Your task to perform on an android device: turn smart compose on in the gmail app Image 0: 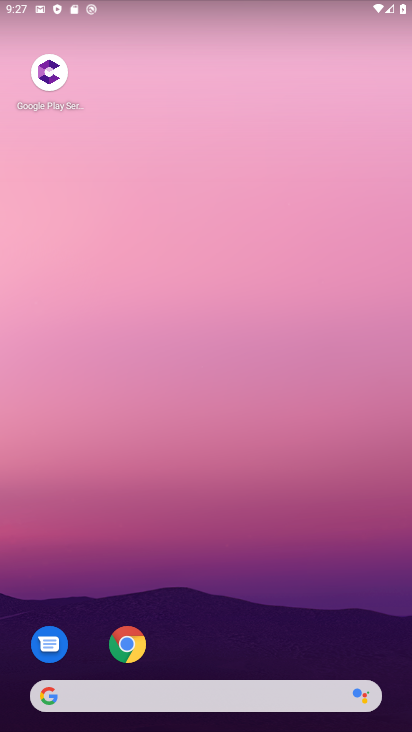
Step 0: drag from (208, 592) to (216, 62)
Your task to perform on an android device: turn smart compose on in the gmail app Image 1: 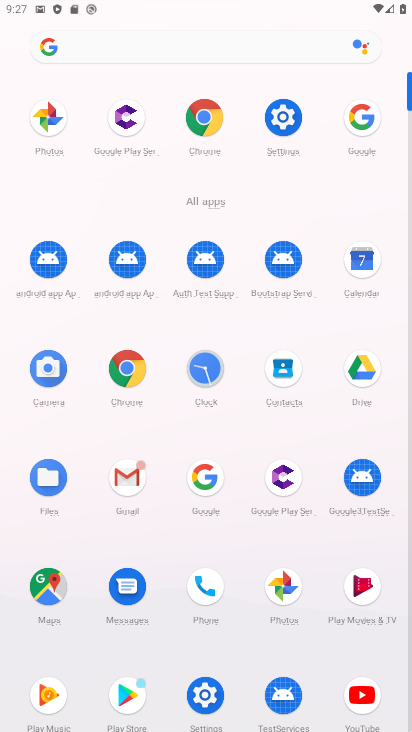
Step 1: click (127, 490)
Your task to perform on an android device: turn smart compose on in the gmail app Image 2: 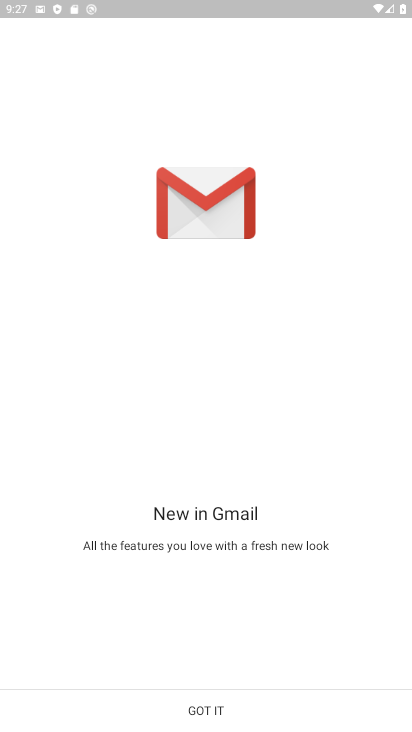
Step 2: click (211, 705)
Your task to perform on an android device: turn smart compose on in the gmail app Image 3: 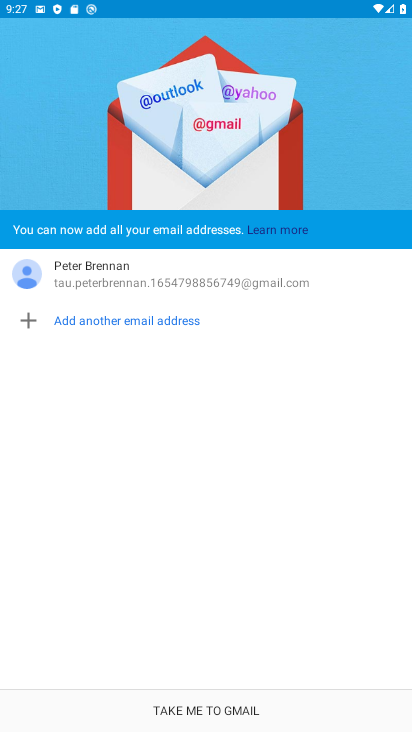
Step 3: click (211, 705)
Your task to perform on an android device: turn smart compose on in the gmail app Image 4: 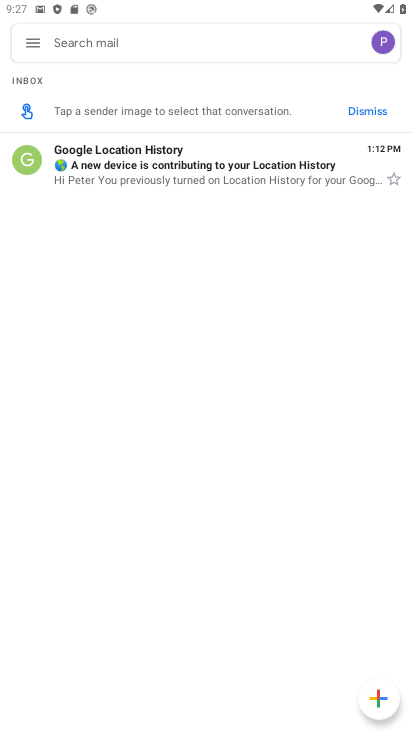
Step 4: click (28, 45)
Your task to perform on an android device: turn smart compose on in the gmail app Image 5: 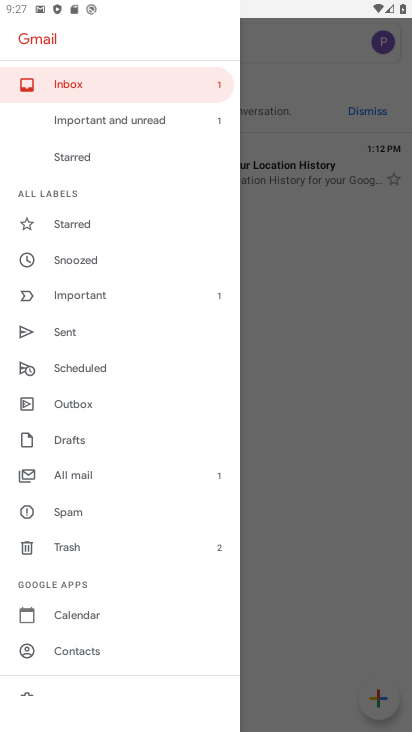
Step 5: drag from (132, 601) to (149, 161)
Your task to perform on an android device: turn smart compose on in the gmail app Image 6: 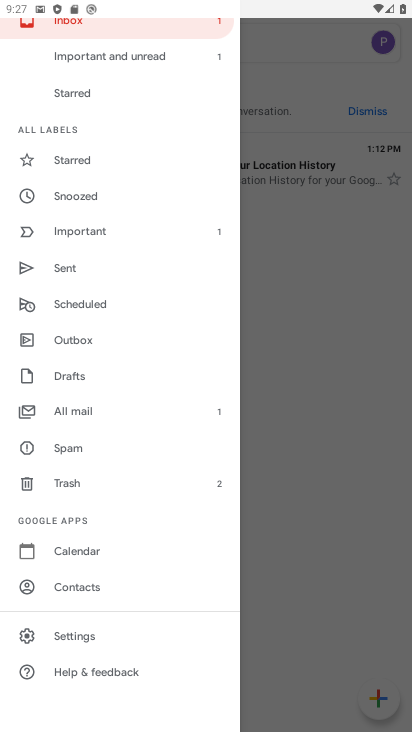
Step 6: click (81, 643)
Your task to perform on an android device: turn smart compose on in the gmail app Image 7: 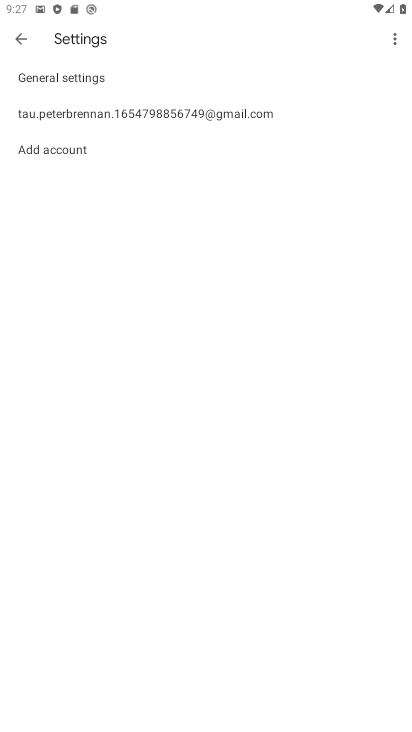
Step 7: click (255, 120)
Your task to perform on an android device: turn smart compose on in the gmail app Image 8: 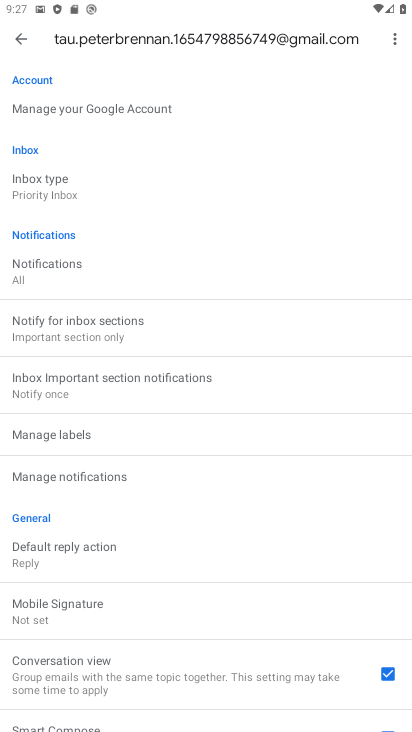
Step 8: task complete